Your task to perform on an android device: Go to battery settings Image 0: 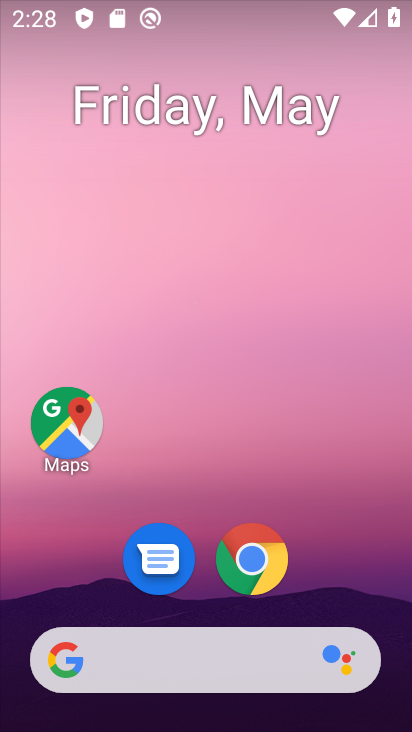
Step 0: drag from (296, 423) to (159, 11)
Your task to perform on an android device: Go to battery settings Image 1: 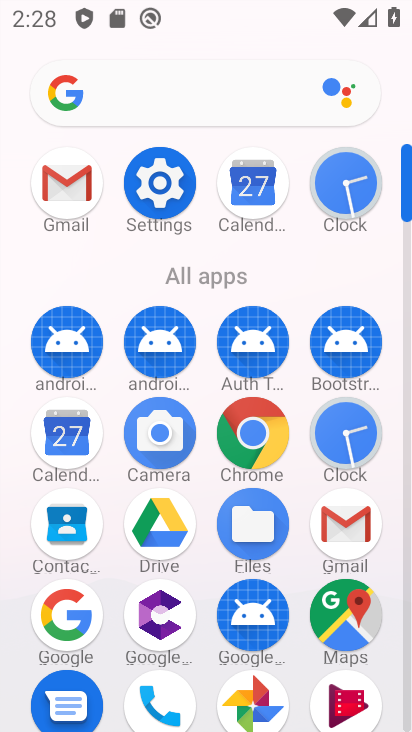
Step 1: click (146, 190)
Your task to perform on an android device: Go to battery settings Image 2: 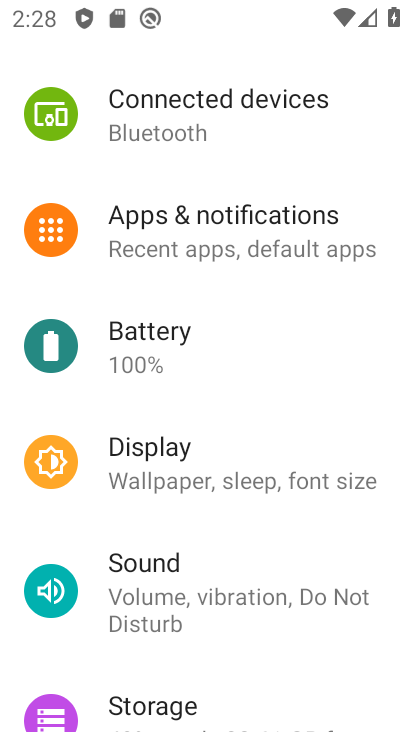
Step 2: click (210, 335)
Your task to perform on an android device: Go to battery settings Image 3: 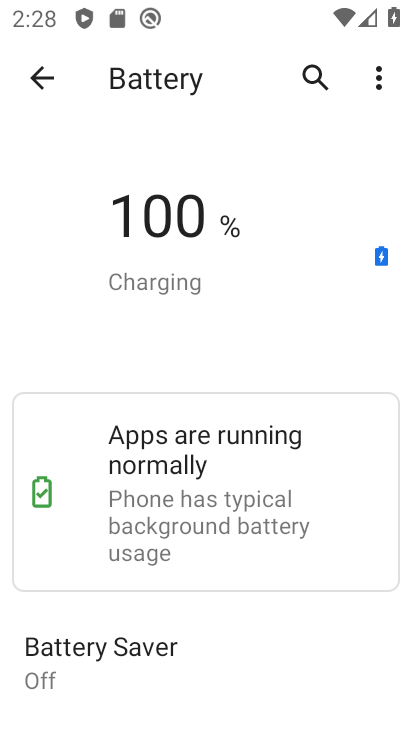
Step 3: task complete